Your task to perform on an android device: check storage Image 0: 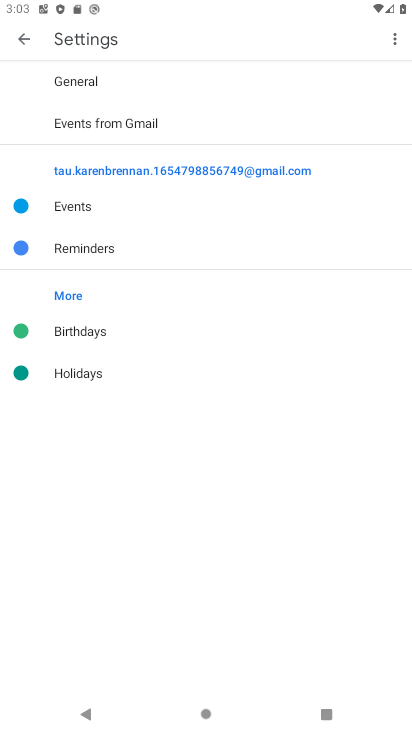
Step 0: press home button
Your task to perform on an android device: check storage Image 1: 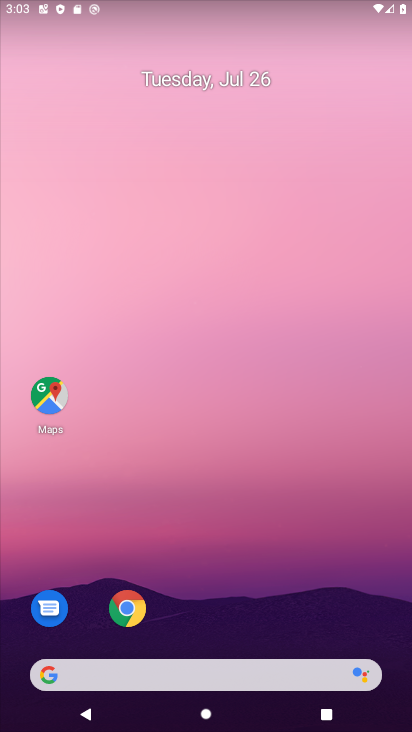
Step 1: drag from (282, 642) to (231, 74)
Your task to perform on an android device: check storage Image 2: 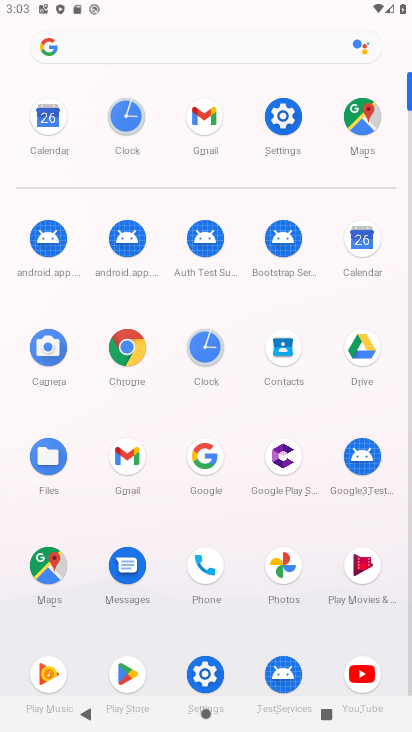
Step 2: click (271, 126)
Your task to perform on an android device: check storage Image 3: 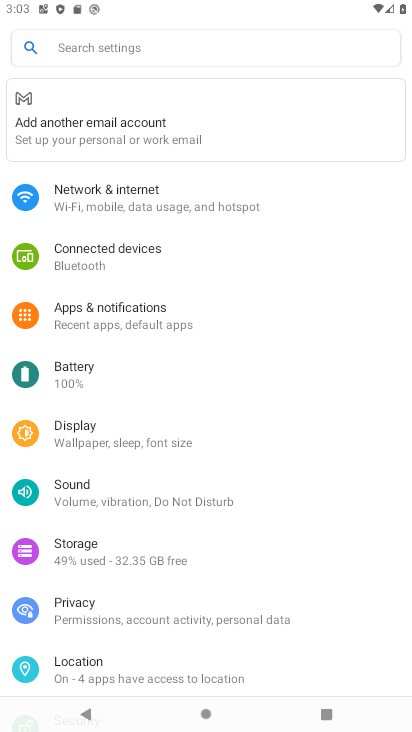
Step 3: click (114, 556)
Your task to perform on an android device: check storage Image 4: 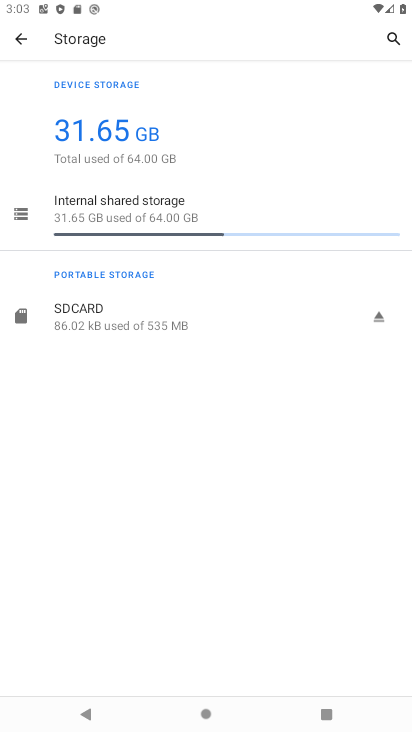
Step 4: task complete